Your task to perform on an android device: turn off improve location accuracy Image 0: 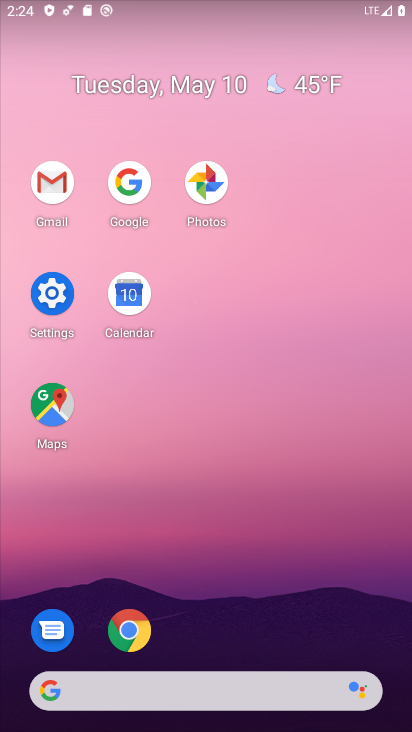
Step 0: click (48, 296)
Your task to perform on an android device: turn off improve location accuracy Image 1: 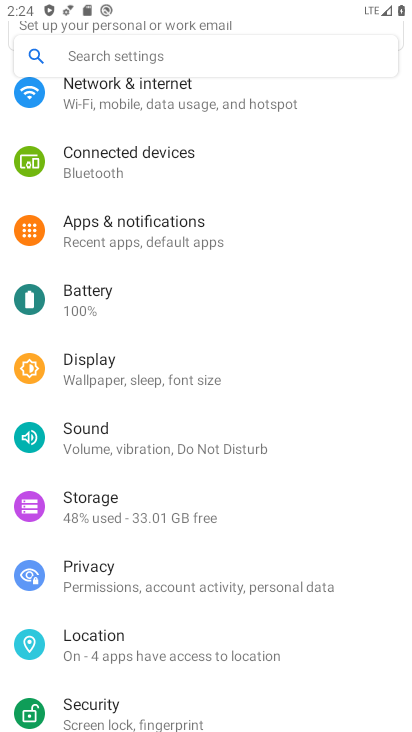
Step 1: click (194, 643)
Your task to perform on an android device: turn off improve location accuracy Image 2: 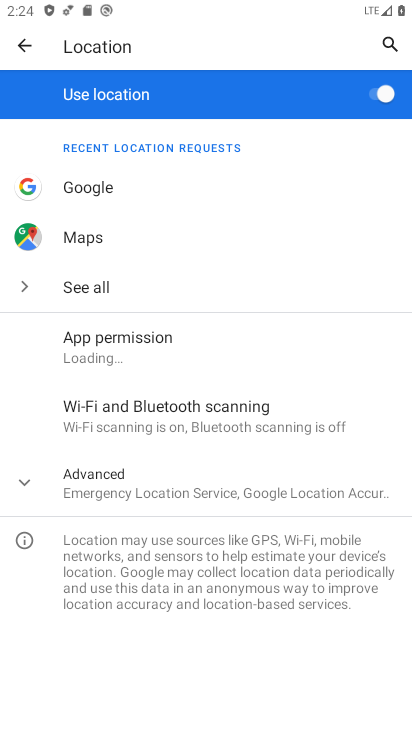
Step 2: click (149, 489)
Your task to perform on an android device: turn off improve location accuracy Image 3: 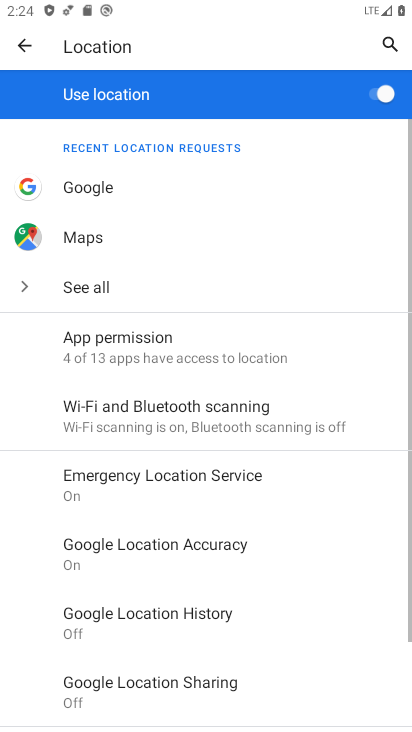
Step 3: click (233, 554)
Your task to perform on an android device: turn off improve location accuracy Image 4: 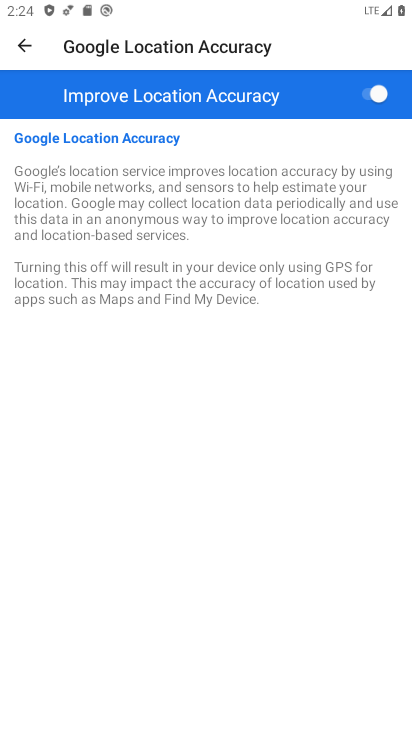
Step 4: click (373, 90)
Your task to perform on an android device: turn off improve location accuracy Image 5: 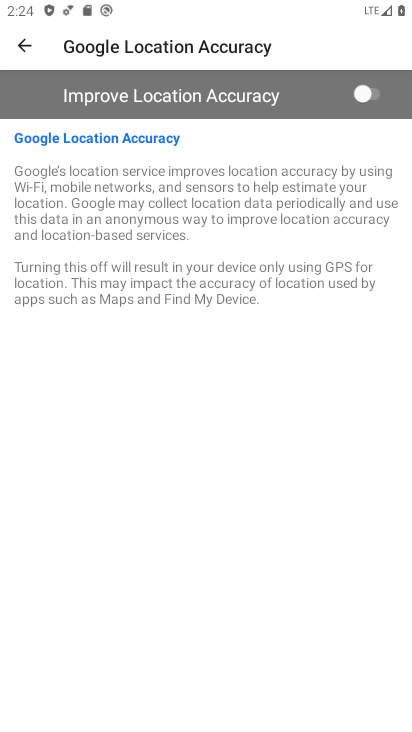
Step 5: task complete